Your task to perform on an android device: Open Wikipedia Image 0: 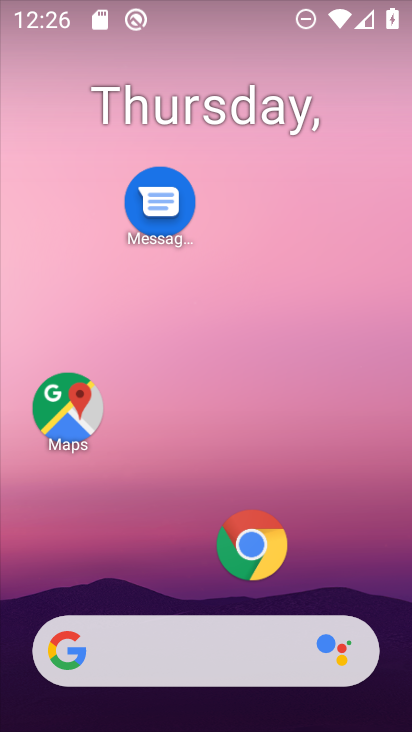
Step 0: click (195, 594)
Your task to perform on an android device: Open Wikipedia Image 1: 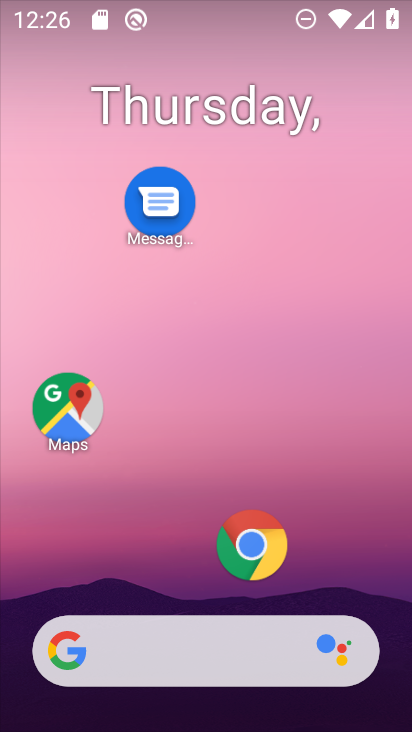
Step 1: click (236, 542)
Your task to perform on an android device: Open Wikipedia Image 2: 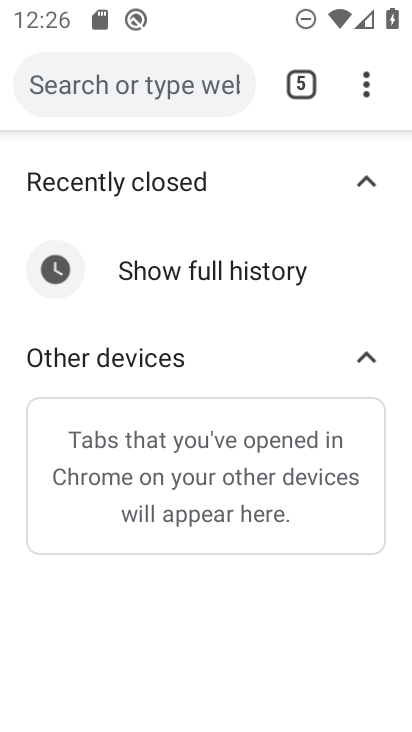
Step 2: click (297, 76)
Your task to perform on an android device: Open Wikipedia Image 3: 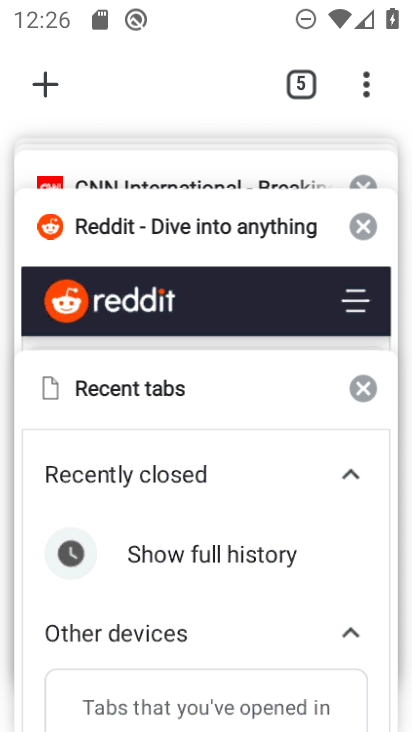
Step 3: click (41, 89)
Your task to perform on an android device: Open Wikipedia Image 4: 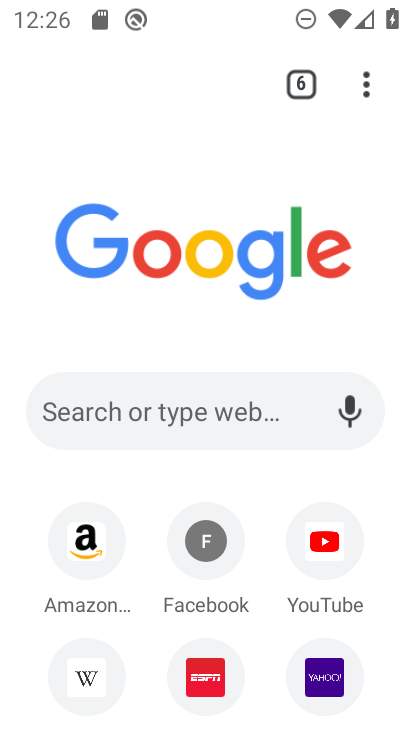
Step 4: click (177, 393)
Your task to perform on an android device: Open Wikipedia Image 5: 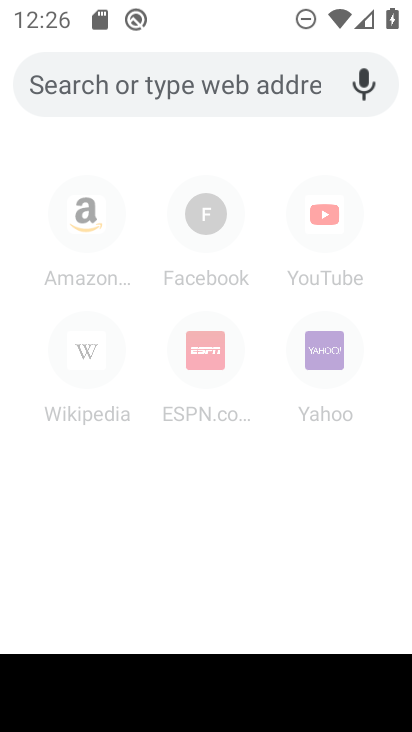
Step 5: type "Wikipedia"
Your task to perform on an android device: Open Wikipedia Image 6: 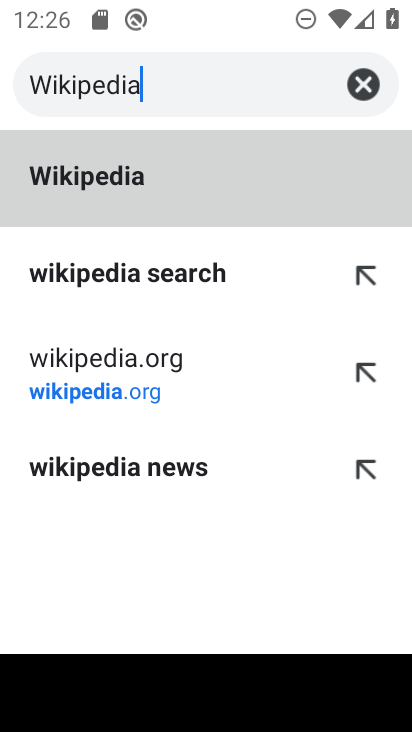
Step 6: click (209, 166)
Your task to perform on an android device: Open Wikipedia Image 7: 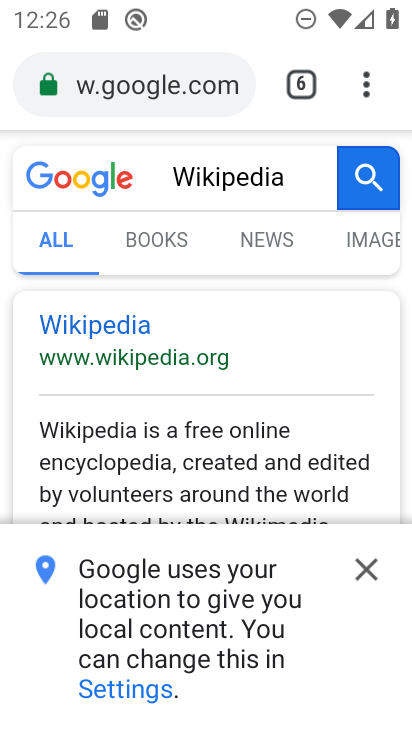
Step 7: click (110, 332)
Your task to perform on an android device: Open Wikipedia Image 8: 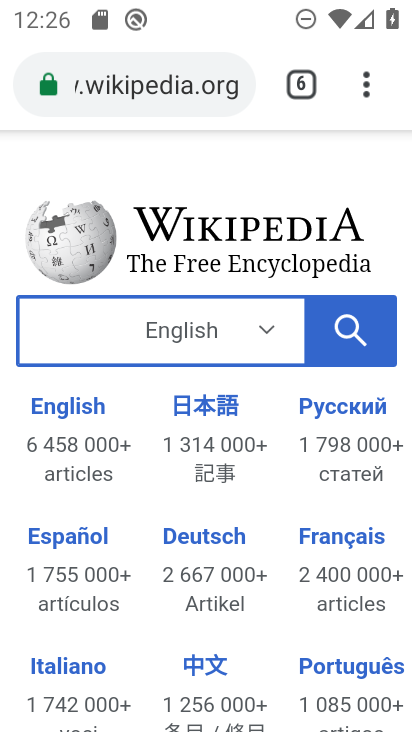
Step 8: task complete